Your task to perform on an android device: open device folders in google photos Image 0: 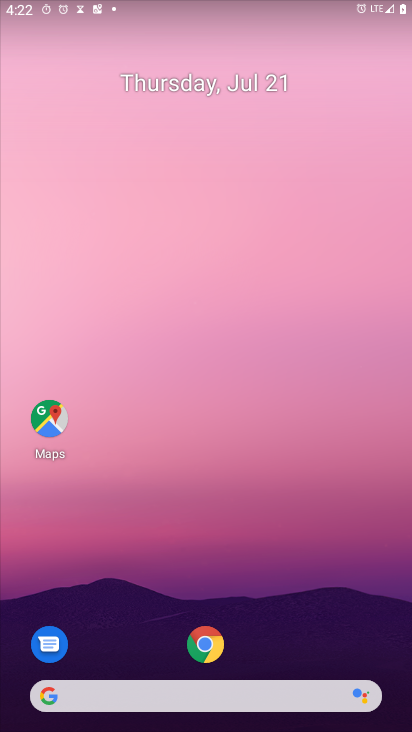
Step 0: press home button
Your task to perform on an android device: open device folders in google photos Image 1: 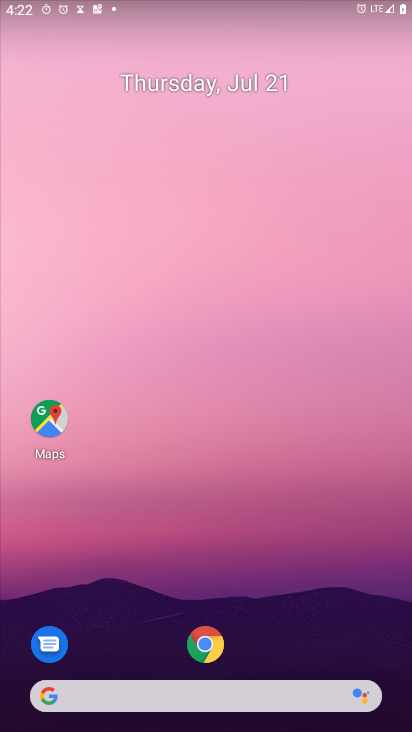
Step 1: drag from (302, 543) to (361, 46)
Your task to perform on an android device: open device folders in google photos Image 2: 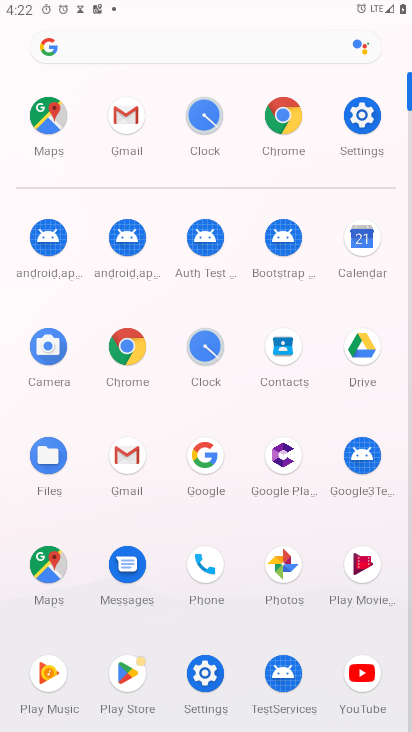
Step 2: click (280, 561)
Your task to perform on an android device: open device folders in google photos Image 3: 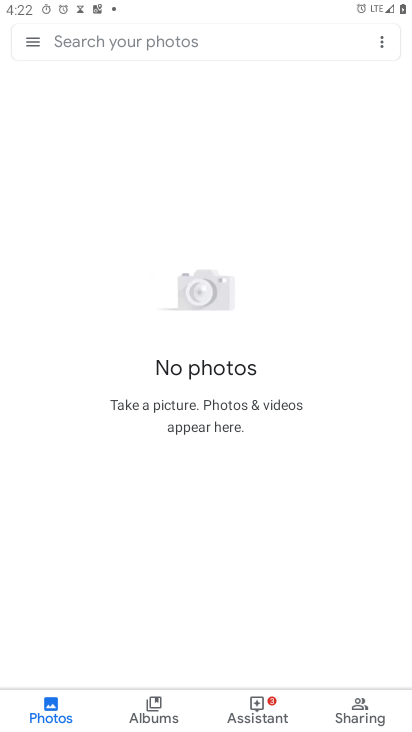
Step 3: click (28, 44)
Your task to perform on an android device: open device folders in google photos Image 4: 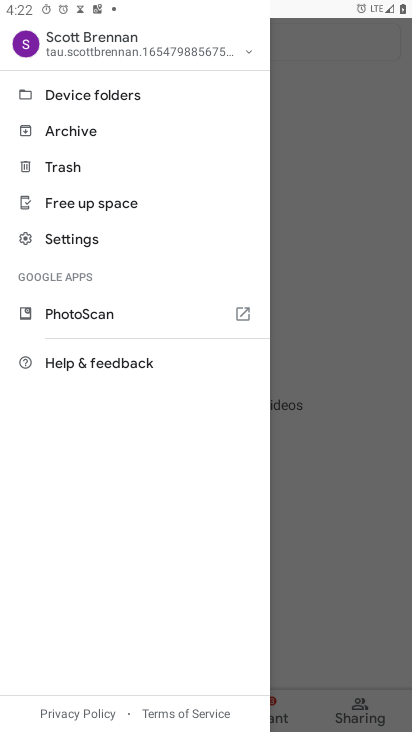
Step 4: click (74, 95)
Your task to perform on an android device: open device folders in google photos Image 5: 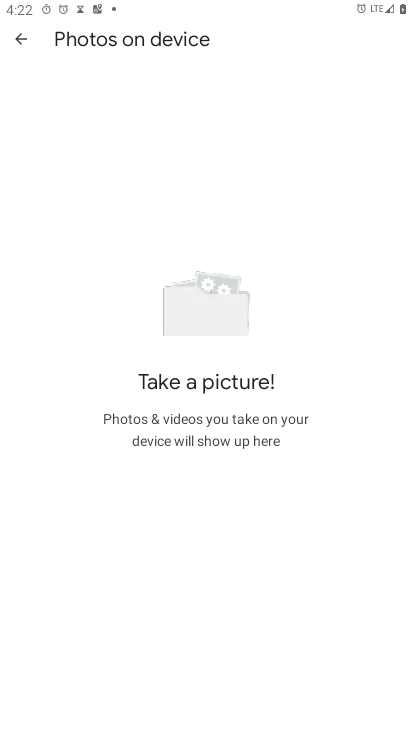
Step 5: task complete